Your task to perform on an android device: Check the news Image 0: 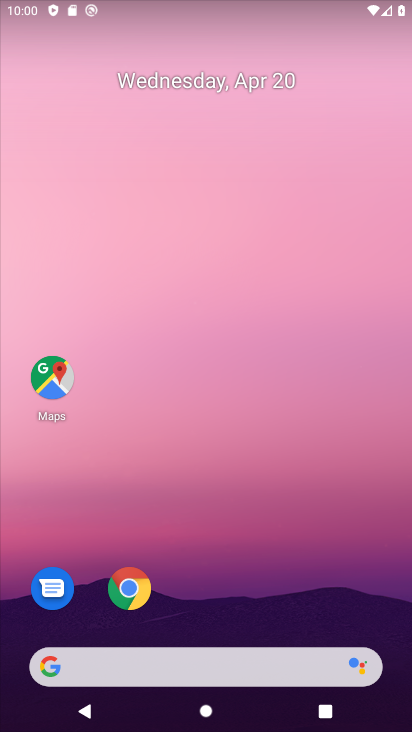
Step 0: drag from (190, 605) to (221, 8)
Your task to perform on an android device: Check the news Image 1: 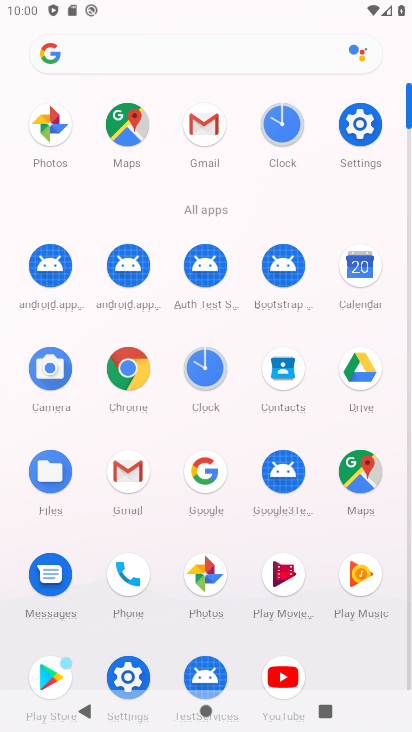
Step 1: click (137, 376)
Your task to perform on an android device: Check the news Image 2: 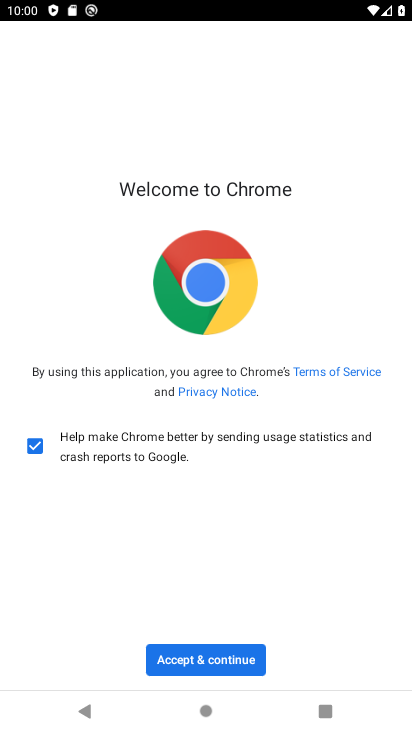
Step 2: click (205, 659)
Your task to perform on an android device: Check the news Image 3: 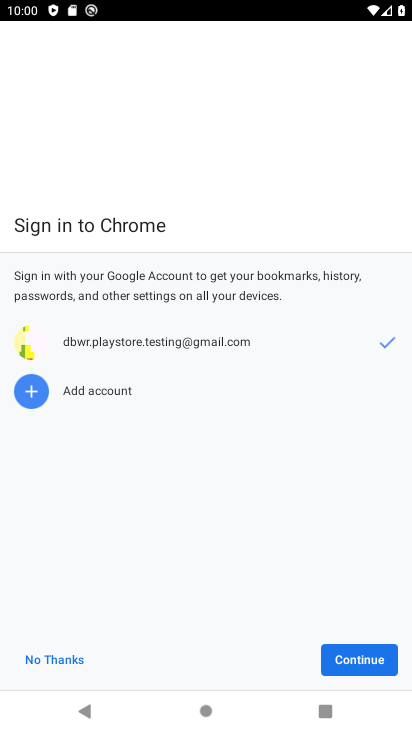
Step 3: click (353, 648)
Your task to perform on an android device: Check the news Image 4: 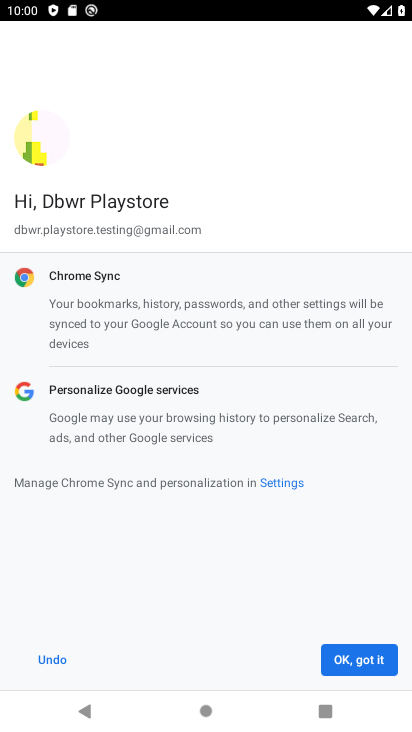
Step 4: click (355, 662)
Your task to perform on an android device: Check the news Image 5: 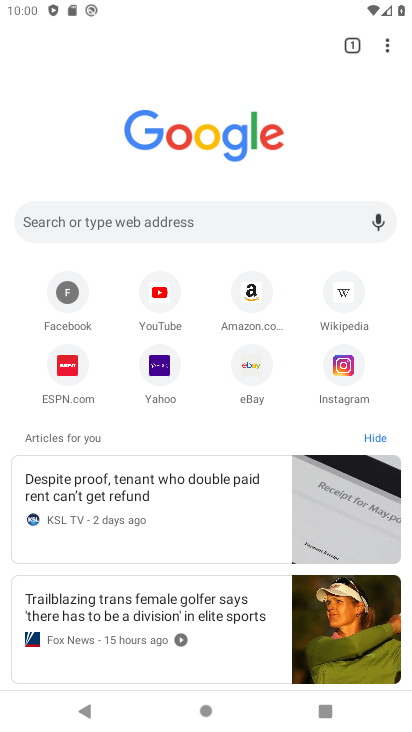
Step 5: task complete